Your task to perform on an android device: Open calendar and show me the first week of next month Image 0: 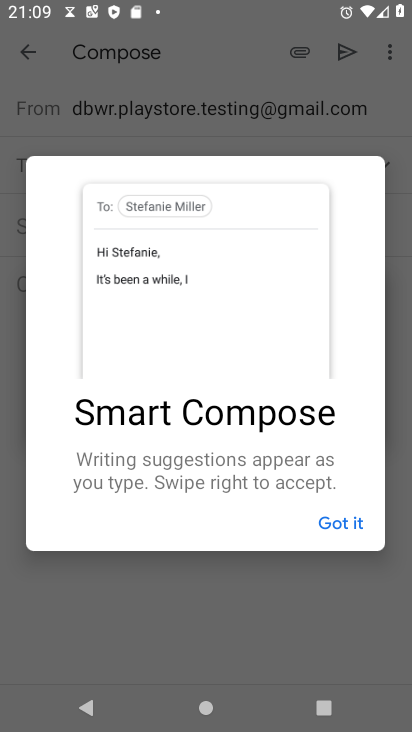
Step 0: press home button
Your task to perform on an android device: Open calendar and show me the first week of next month Image 1: 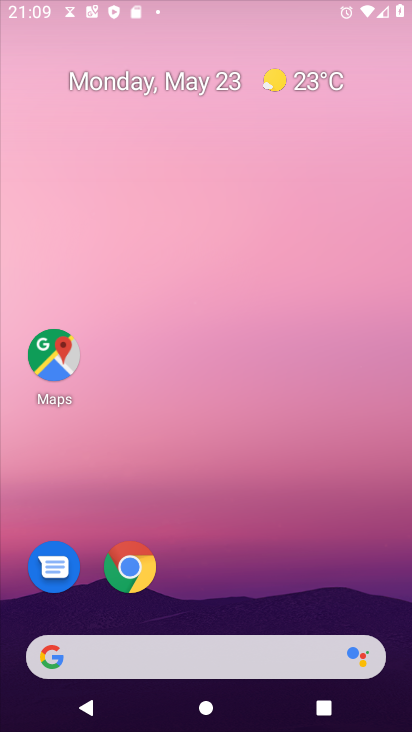
Step 1: drag from (172, 579) to (237, 188)
Your task to perform on an android device: Open calendar and show me the first week of next month Image 2: 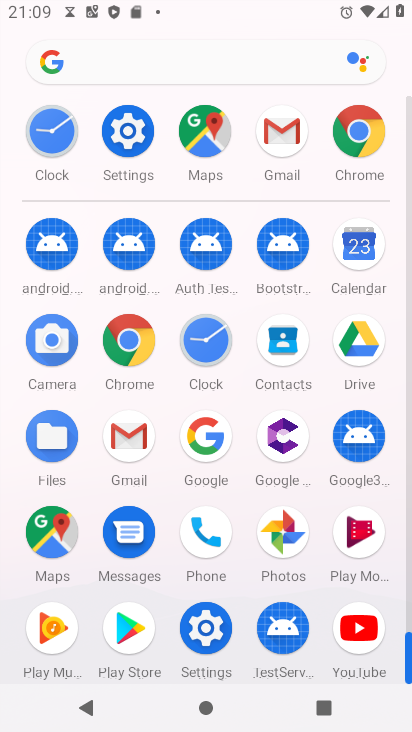
Step 2: click (354, 240)
Your task to perform on an android device: Open calendar and show me the first week of next month Image 3: 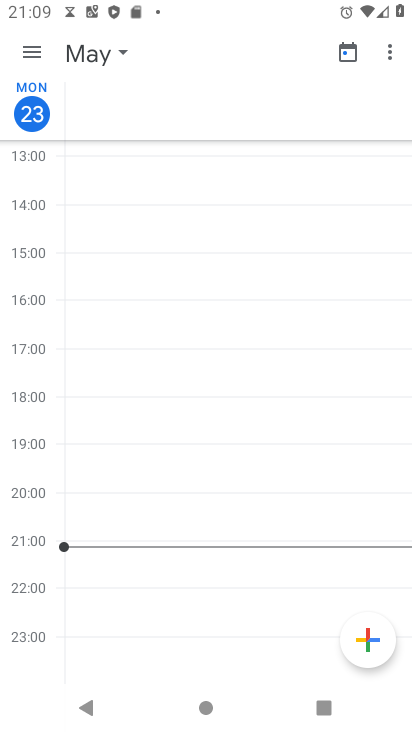
Step 3: task complete